Your task to perform on an android device: check the backup settings in the google photos Image 0: 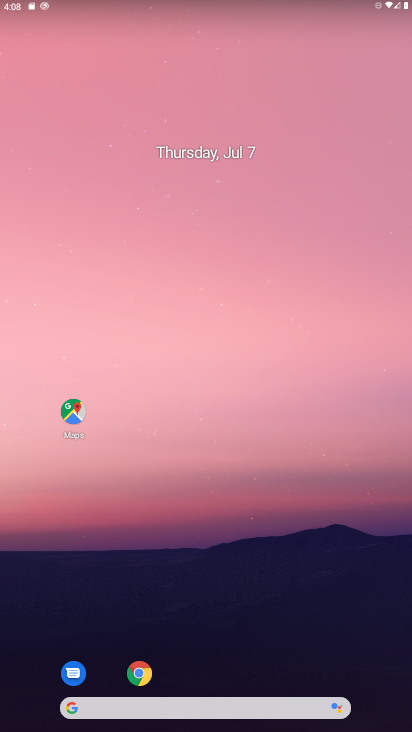
Step 0: press home button
Your task to perform on an android device: check the backup settings in the google photos Image 1: 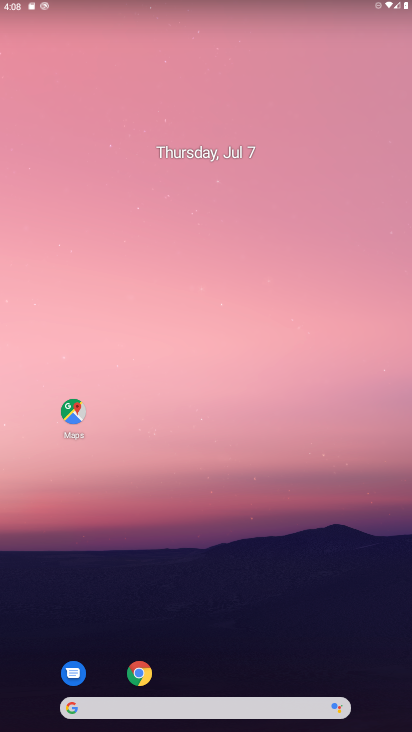
Step 1: drag from (230, 672) to (259, 64)
Your task to perform on an android device: check the backup settings in the google photos Image 2: 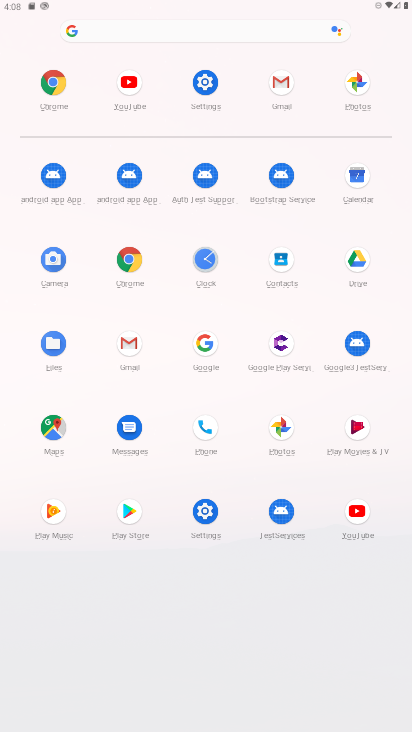
Step 2: click (276, 419)
Your task to perform on an android device: check the backup settings in the google photos Image 3: 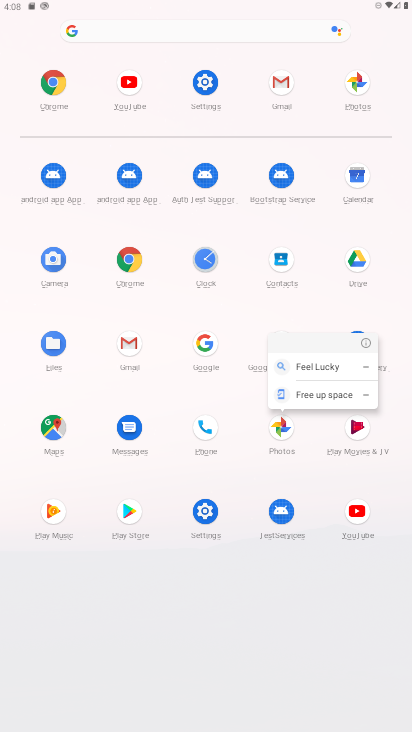
Step 3: click (280, 424)
Your task to perform on an android device: check the backup settings in the google photos Image 4: 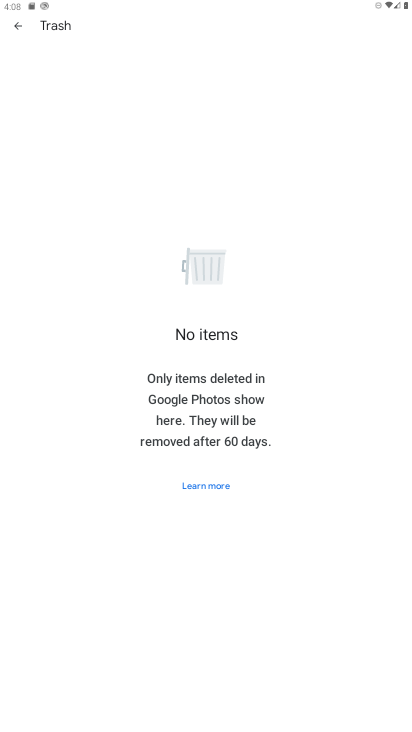
Step 4: click (19, 25)
Your task to perform on an android device: check the backup settings in the google photos Image 5: 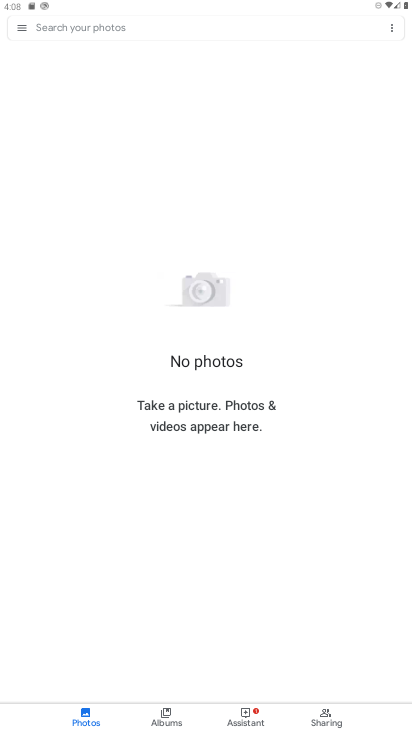
Step 5: click (18, 26)
Your task to perform on an android device: check the backup settings in the google photos Image 6: 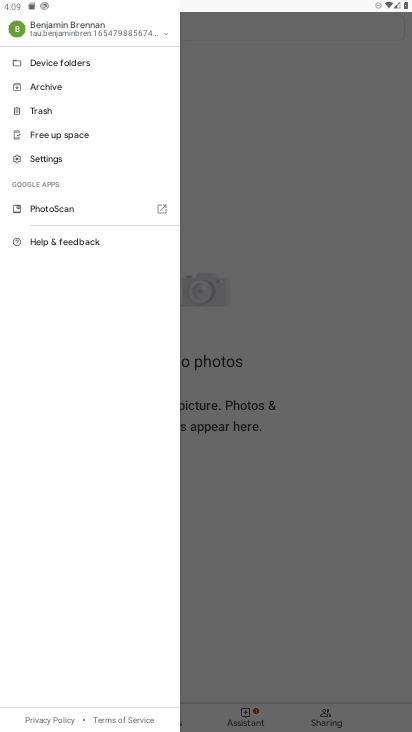
Step 6: click (73, 155)
Your task to perform on an android device: check the backup settings in the google photos Image 7: 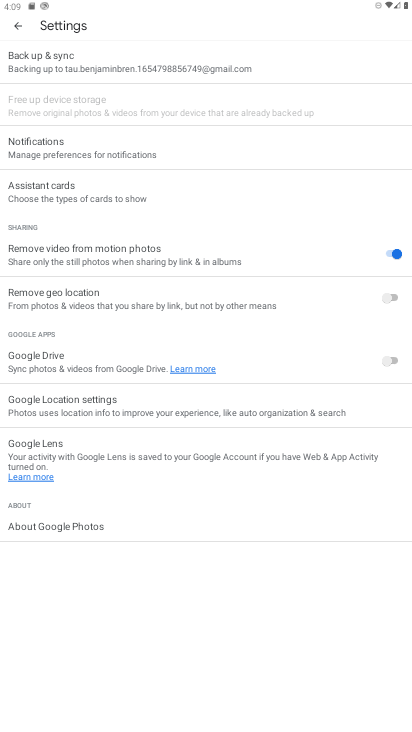
Step 7: click (50, 54)
Your task to perform on an android device: check the backup settings in the google photos Image 8: 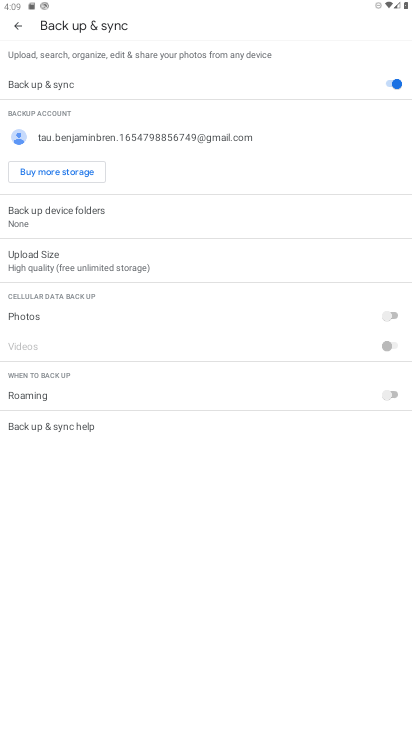
Step 8: task complete